Your task to perform on an android device: Open the Play Movies app and select the watchlist tab. Image 0: 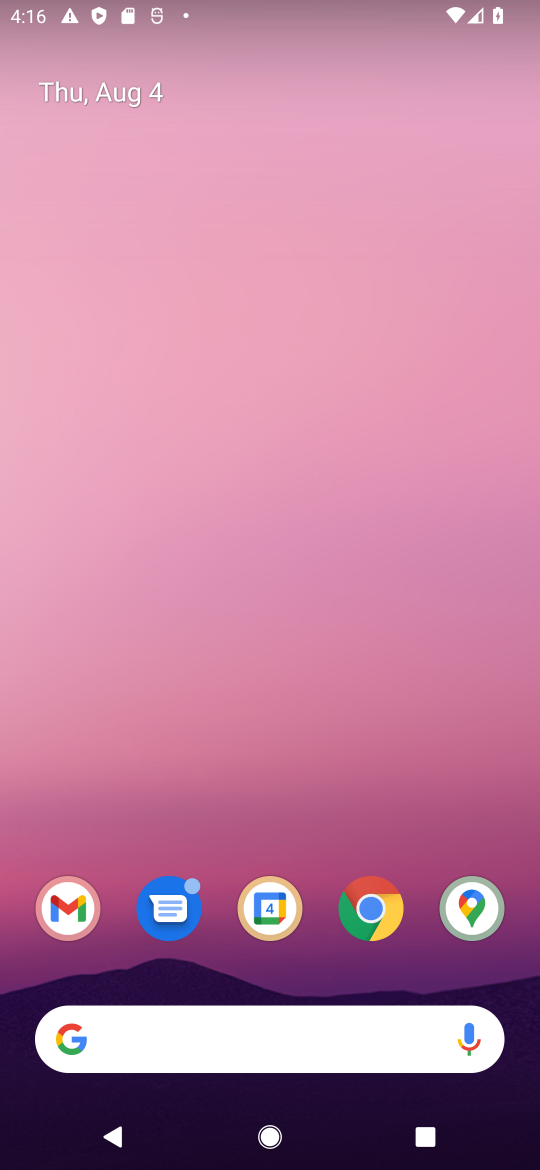
Step 0: drag from (248, 919) to (180, 219)
Your task to perform on an android device: Open the Play Movies app and select the watchlist tab. Image 1: 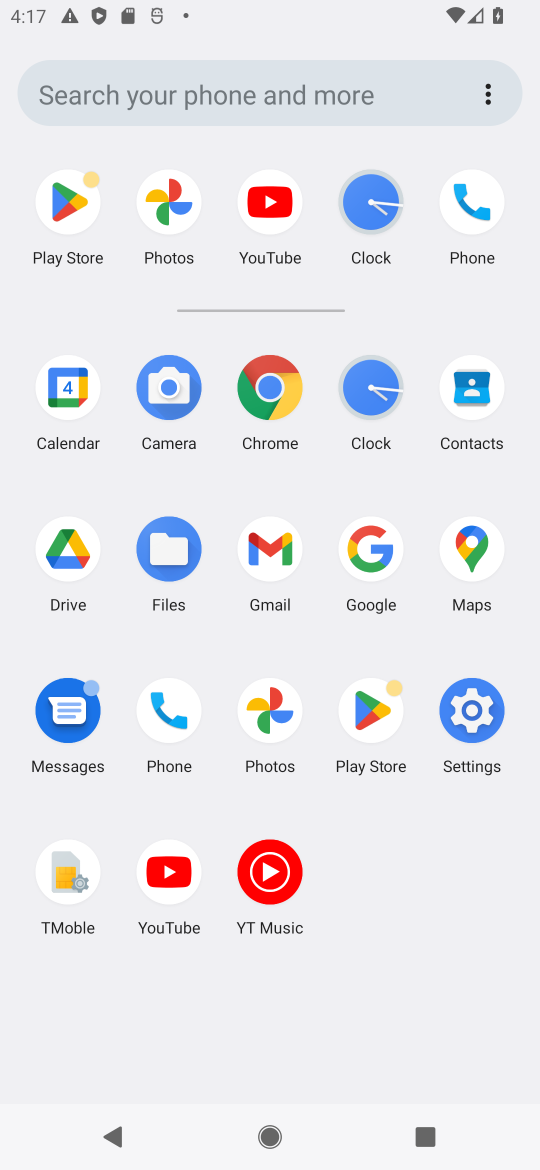
Step 1: task complete